Your task to perform on an android device: check google app version Image 0: 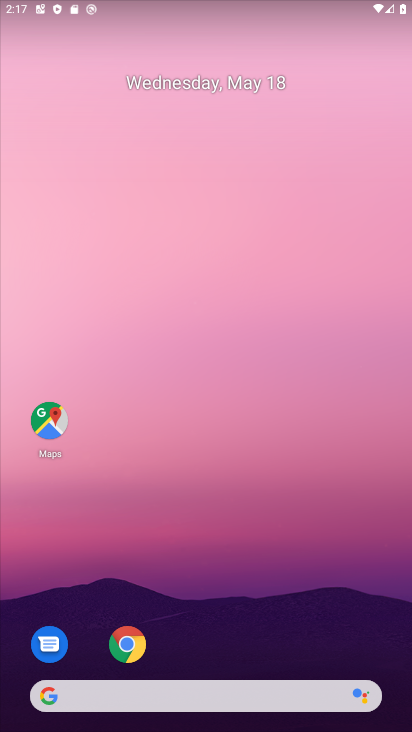
Step 0: drag from (214, 722) to (207, 173)
Your task to perform on an android device: check google app version Image 1: 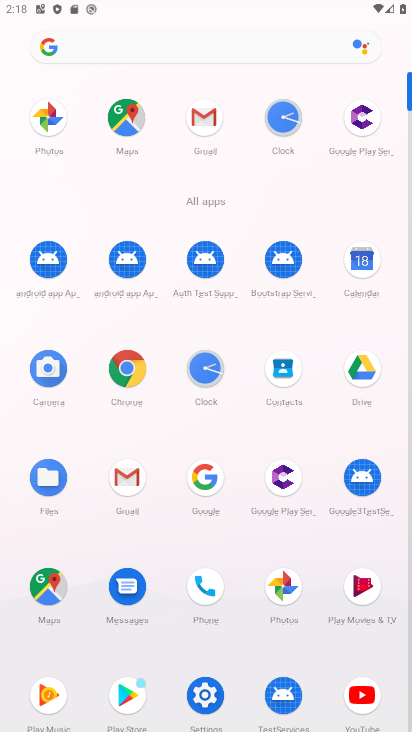
Step 1: click (204, 480)
Your task to perform on an android device: check google app version Image 2: 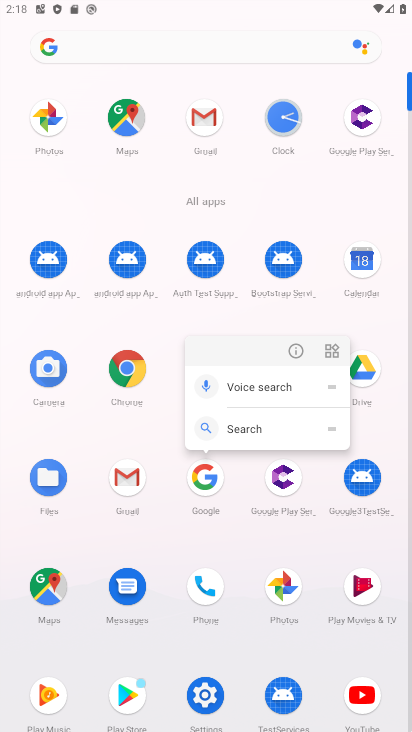
Step 2: click (296, 348)
Your task to perform on an android device: check google app version Image 3: 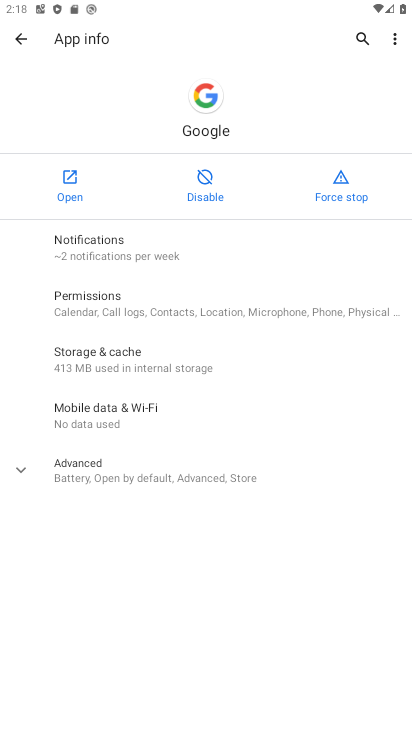
Step 3: click (210, 479)
Your task to perform on an android device: check google app version Image 4: 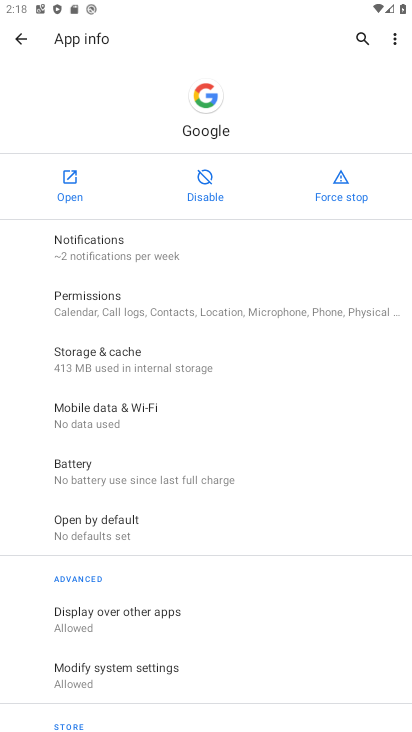
Step 4: task complete